Your task to perform on an android device: remove spam from my inbox in the gmail app Image 0: 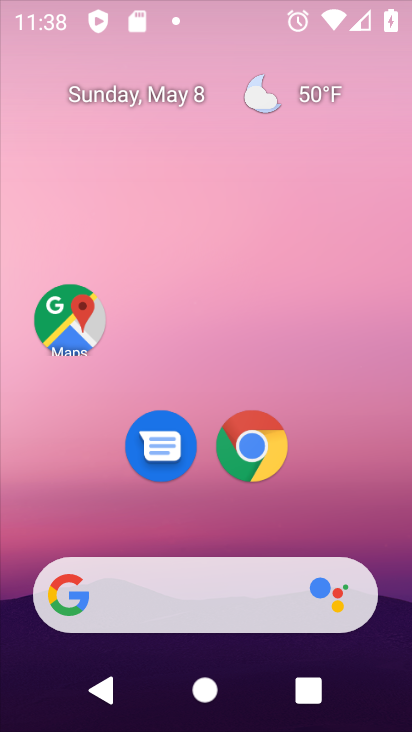
Step 0: press home button
Your task to perform on an android device: remove spam from my inbox in the gmail app Image 1: 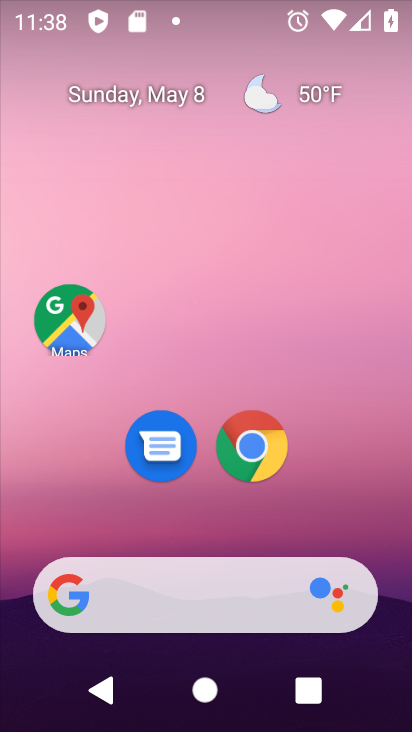
Step 1: drag from (340, 529) to (341, 3)
Your task to perform on an android device: remove spam from my inbox in the gmail app Image 2: 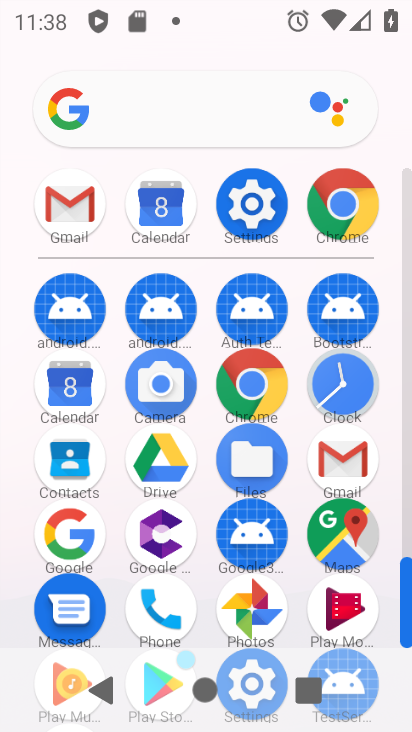
Step 2: click (344, 449)
Your task to perform on an android device: remove spam from my inbox in the gmail app Image 3: 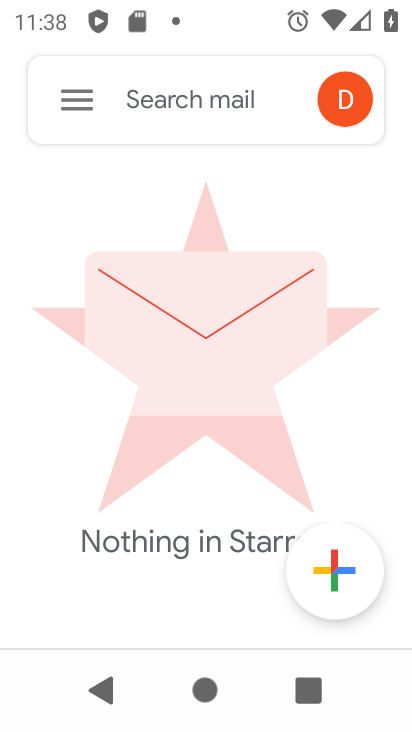
Step 3: click (62, 104)
Your task to perform on an android device: remove spam from my inbox in the gmail app Image 4: 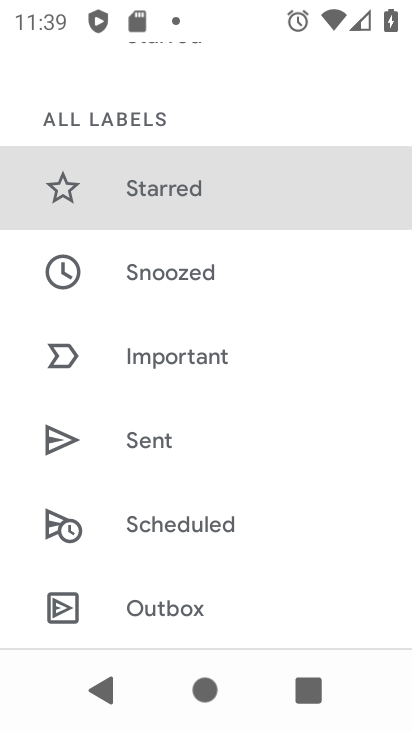
Step 4: drag from (184, 591) to (212, 160)
Your task to perform on an android device: remove spam from my inbox in the gmail app Image 5: 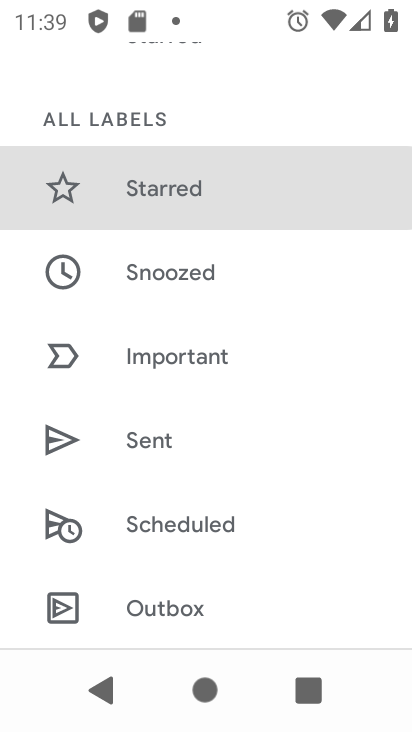
Step 5: drag from (203, 467) to (235, 246)
Your task to perform on an android device: remove spam from my inbox in the gmail app Image 6: 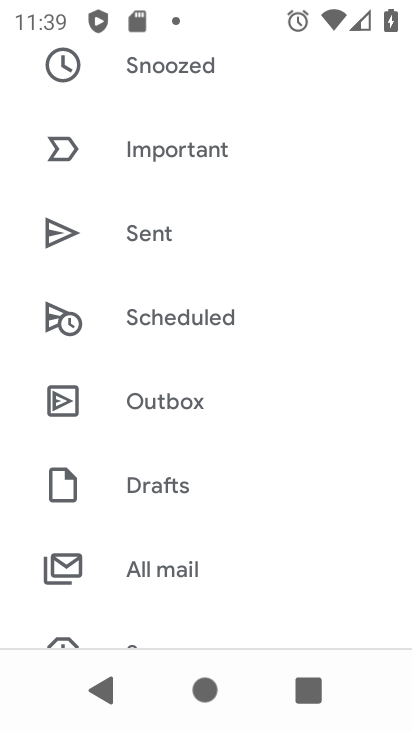
Step 6: drag from (171, 569) to (163, 267)
Your task to perform on an android device: remove spam from my inbox in the gmail app Image 7: 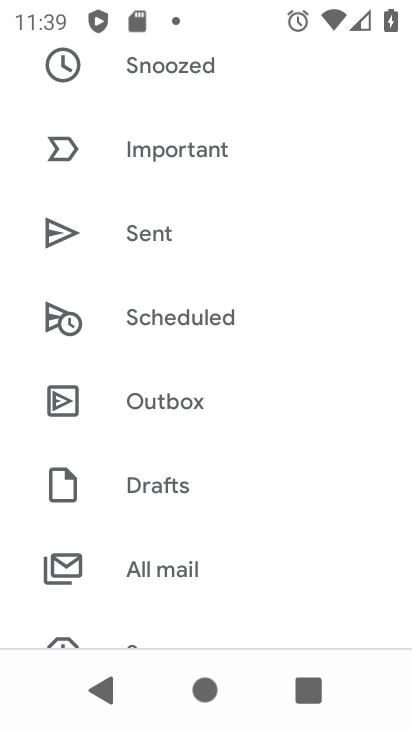
Step 7: drag from (185, 574) to (234, 215)
Your task to perform on an android device: remove spam from my inbox in the gmail app Image 8: 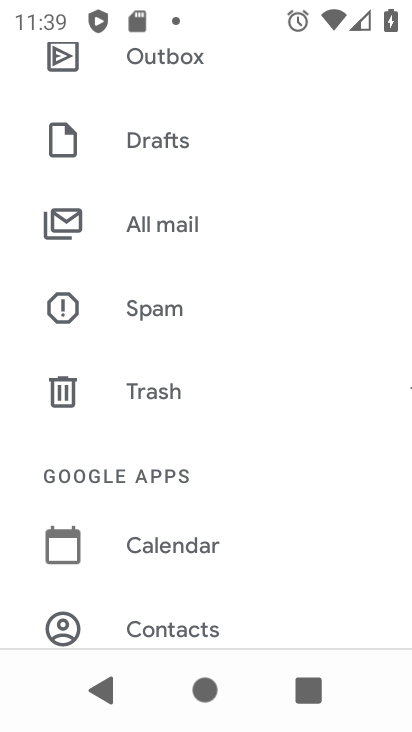
Step 8: click (172, 311)
Your task to perform on an android device: remove spam from my inbox in the gmail app Image 9: 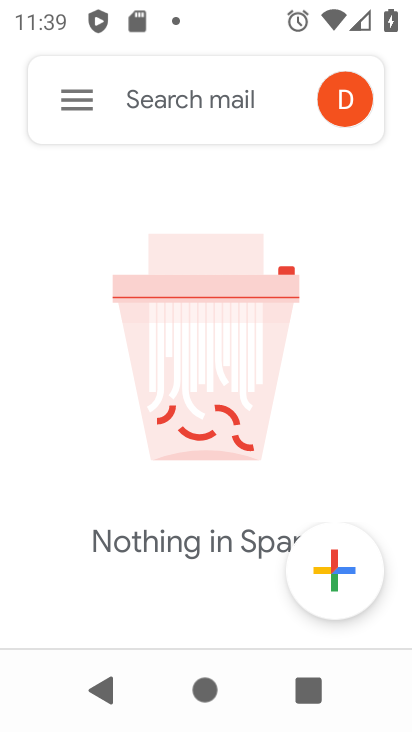
Step 9: task complete